Your task to perform on an android device: Go to eBay Image 0: 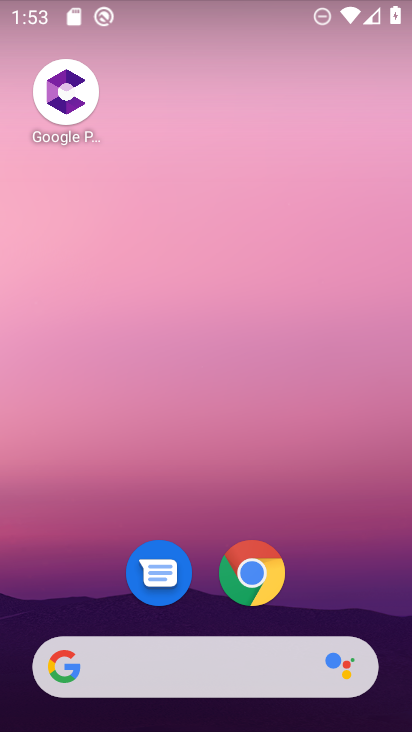
Step 0: drag from (347, 600) to (190, 0)
Your task to perform on an android device: Go to eBay Image 1: 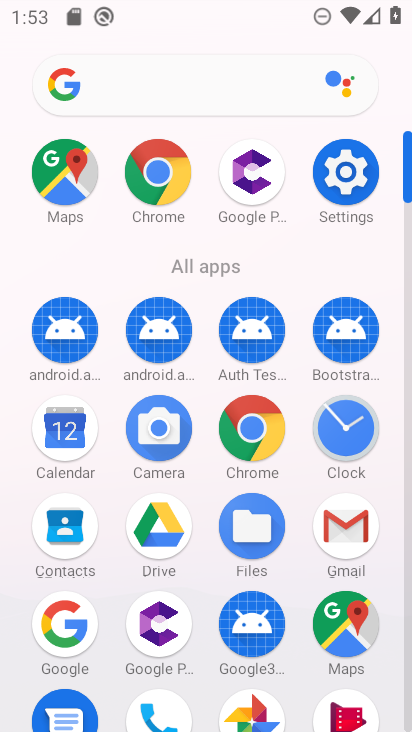
Step 1: click (155, 176)
Your task to perform on an android device: Go to eBay Image 2: 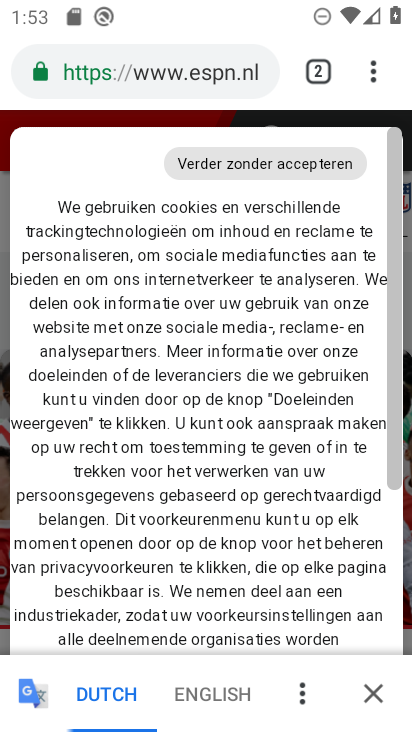
Step 2: drag from (380, 78) to (115, 571)
Your task to perform on an android device: Go to eBay Image 3: 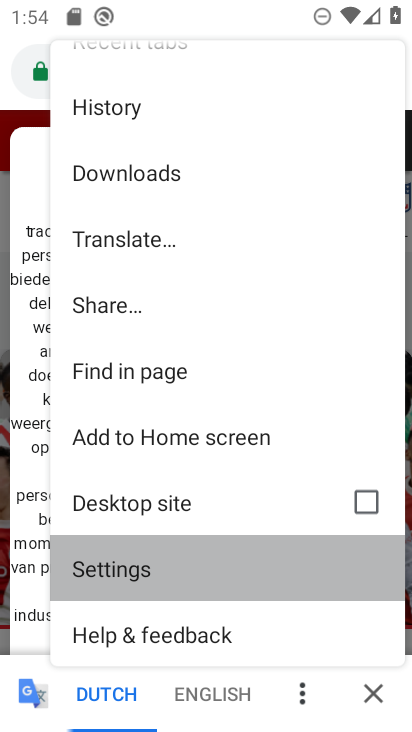
Step 3: click (115, 571)
Your task to perform on an android device: Go to eBay Image 4: 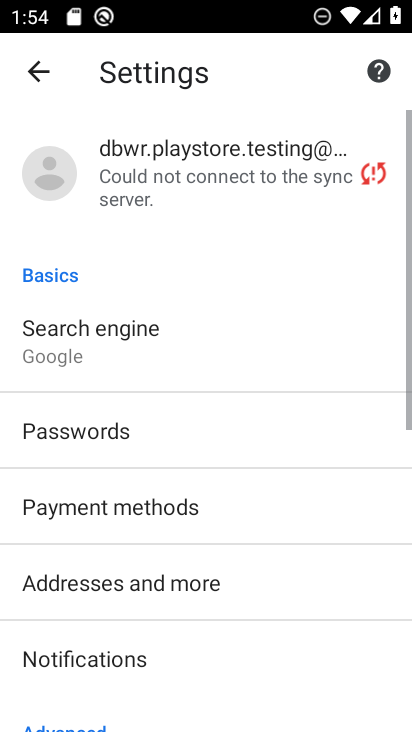
Step 4: click (174, 52)
Your task to perform on an android device: Go to eBay Image 5: 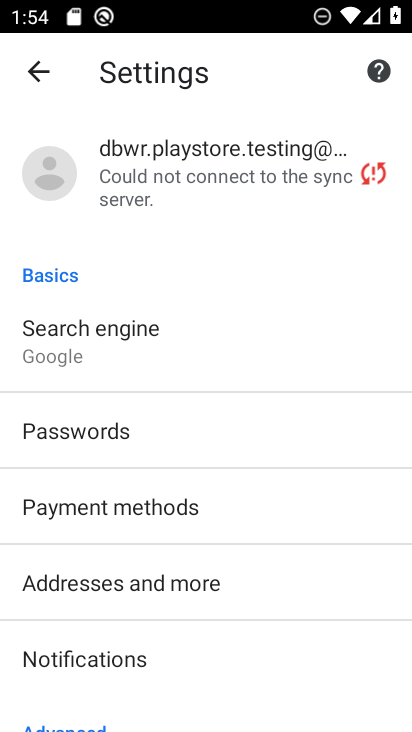
Step 5: drag from (226, 374) to (256, 148)
Your task to perform on an android device: Go to eBay Image 6: 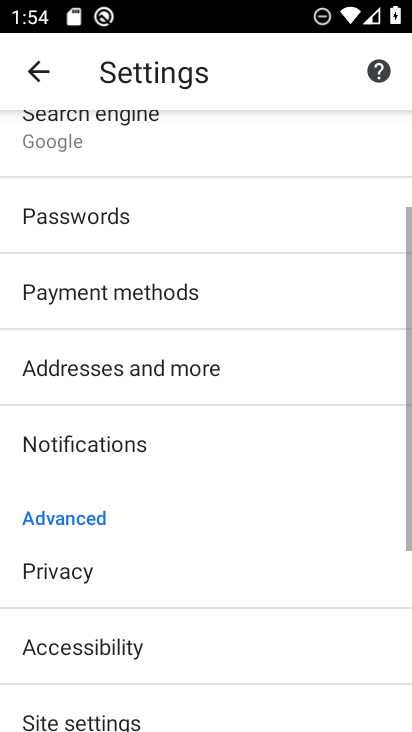
Step 6: drag from (227, 477) to (124, 113)
Your task to perform on an android device: Go to eBay Image 7: 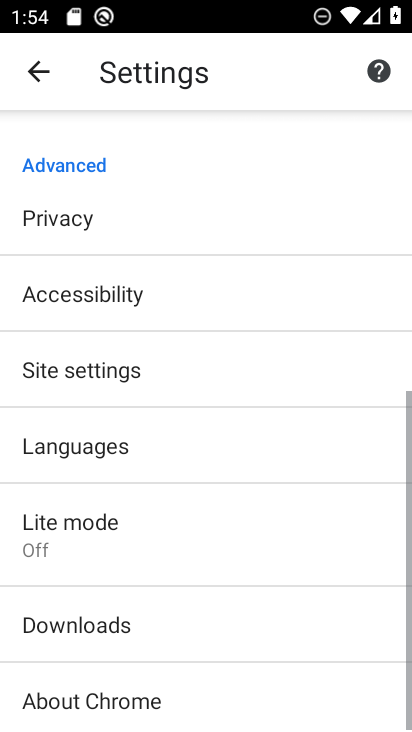
Step 7: drag from (130, 492) to (102, 160)
Your task to perform on an android device: Go to eBay Image 8: 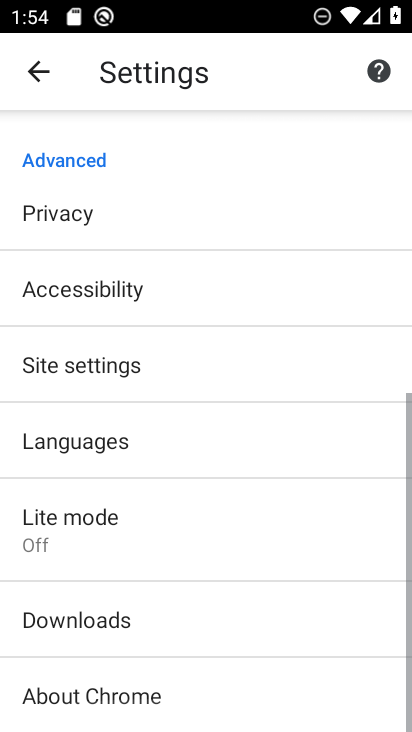
Step 8: drag from (156, 337) to (140, 138)
Your task to perform on an android device: Go to eBay Image 9: 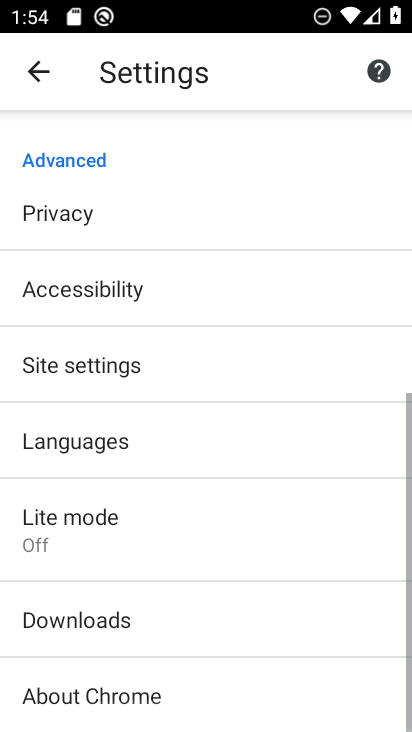
Step 9: drag from (175, 383) to (152, 109)
Your task to perform on an android device: Go to eBay Image 10: 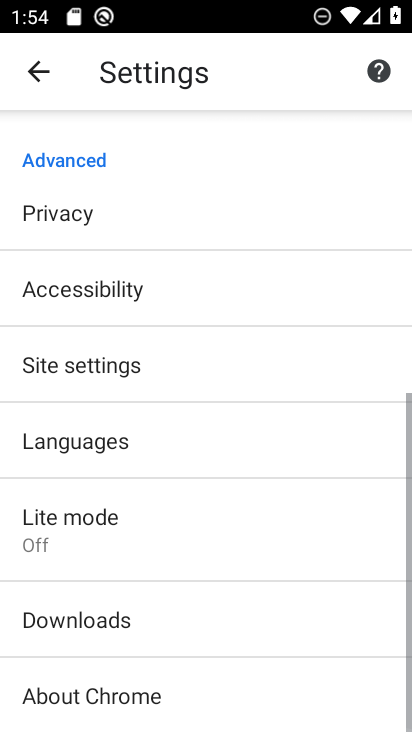
Step 10: drag from (120, 335) to (115, 42)
Your task to perform on an android device: Go to eBay Image 11: 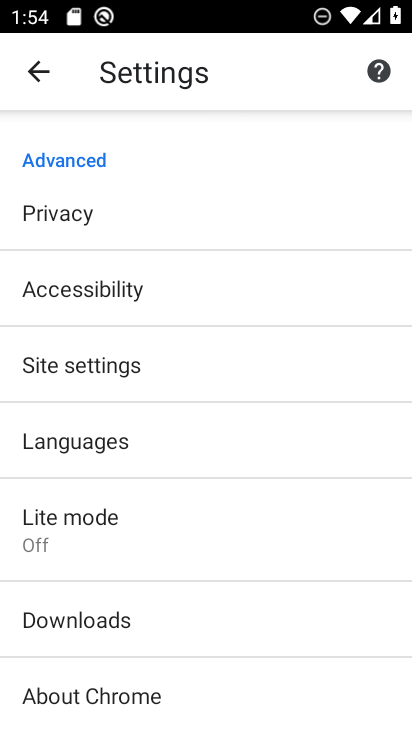
Step 11: drag from (137, 324) to (137, 189)
Your task to perform on an android device: Go to eBay Image 12: 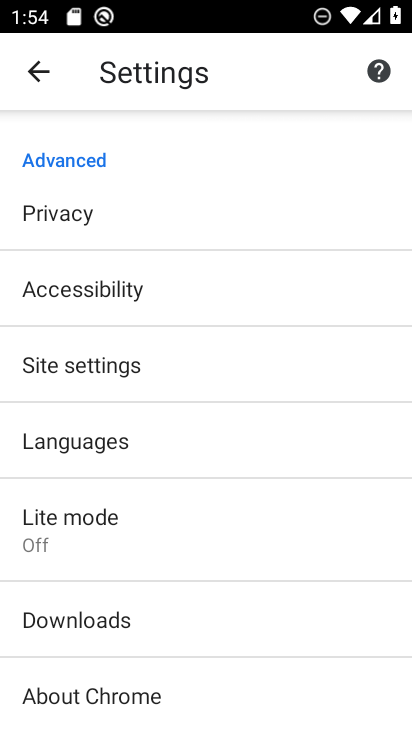
Step 12: click (63, 366)
Your task to perform on an android device: Go to eBay Image 13: 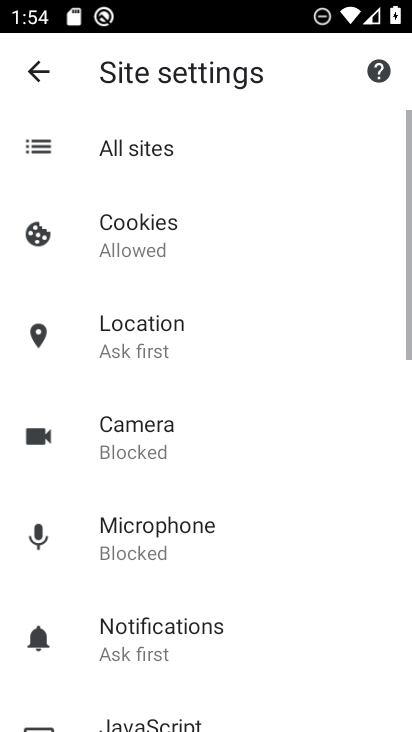
Step 13: click (37, 77)
Your task to perform on an android device: Go to eBay Image 14: 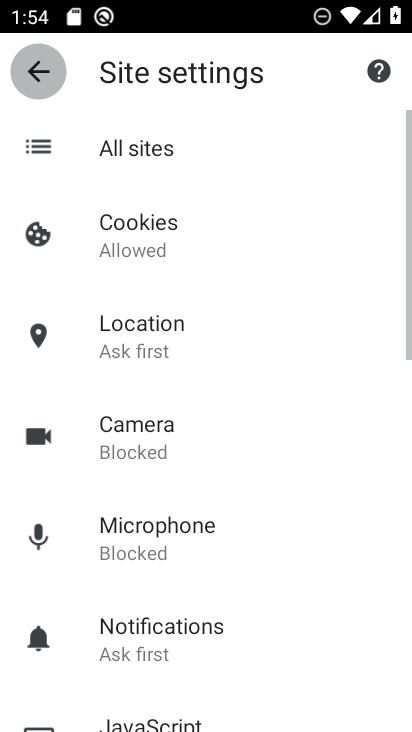
Step 14: click (37, 77)
Your task to perform on an android device: Go to eBay Image 15: 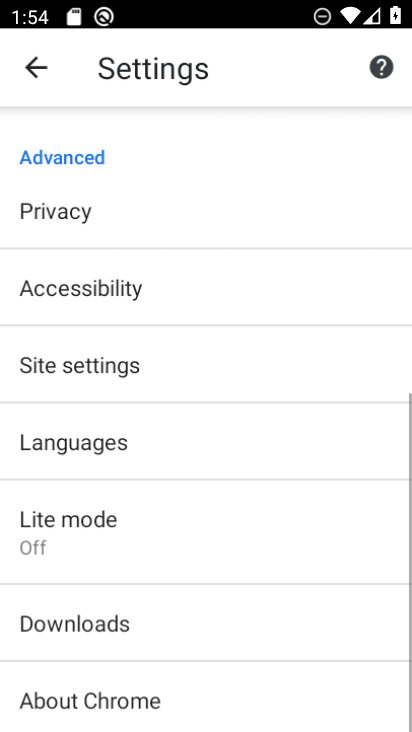
Step 15: click (36, 76)
Your task to perform on an android device: Go to eBay Image 16: 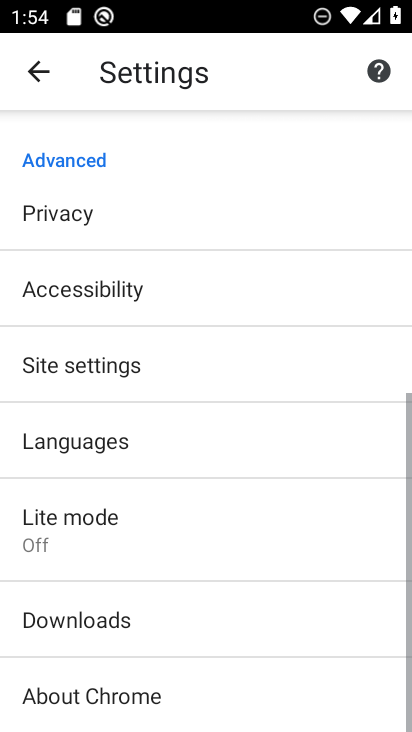
Step 16: click (36, 76)
Your task to perform on an android device: Go to eBay Image 17: 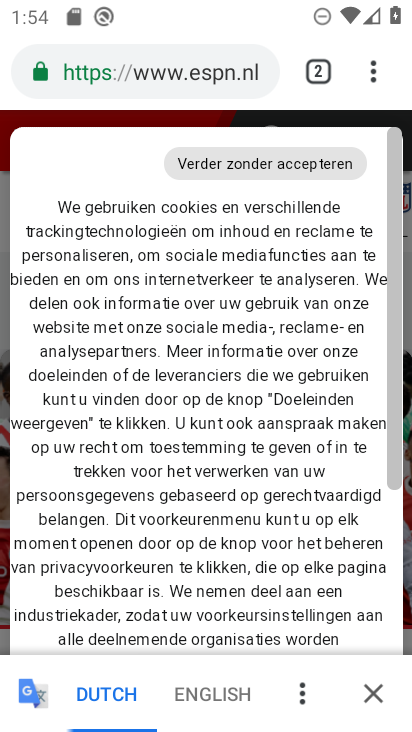
Step 17: drag from (370, 76) to (103, 143)
Your task to perform on an android device: Go to eBay Image 18: 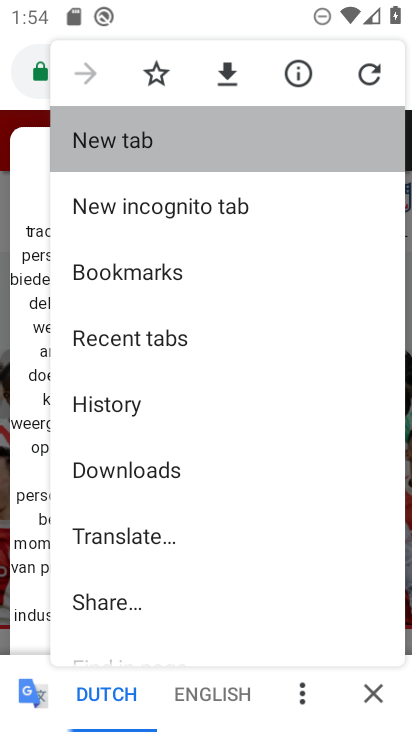
Step 18: click (102, 136)
Your task to perform on an android device: Go to eBay Image 19: 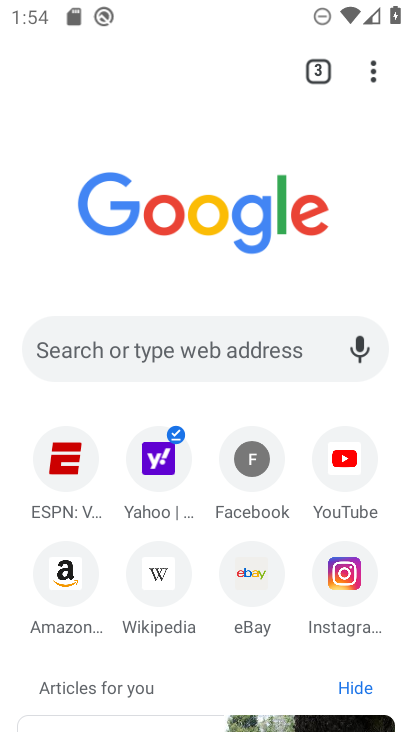
Step 19: click (246, 582)
Your task to perform on an android device: Go to eBay Image 20: 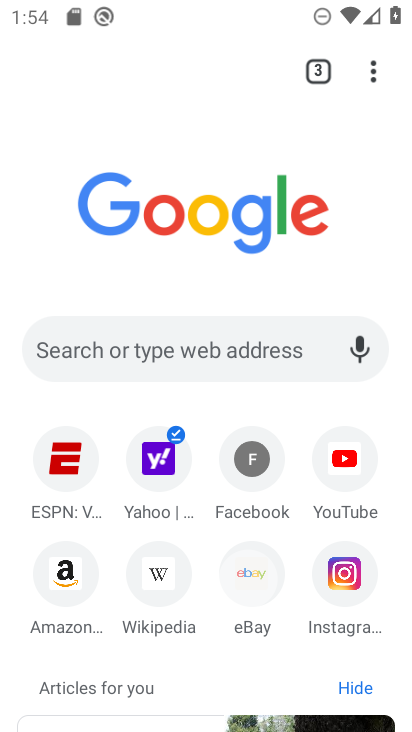
Step 20: click (247, 581)
Your task to perform on an android device: Go to eBay Image 21: 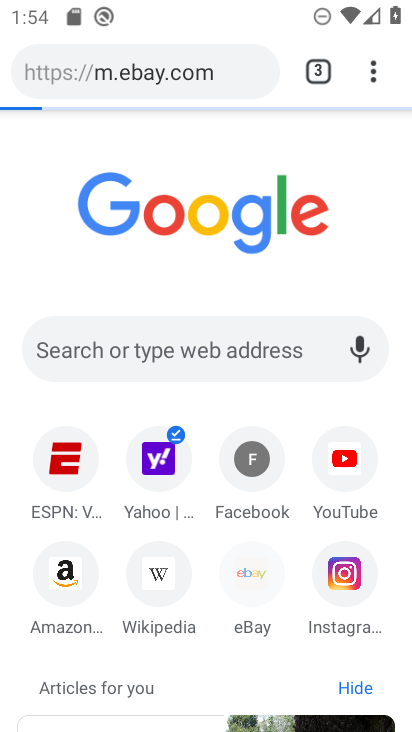
Step 21: click (250, 581)
Your task to perform on an android device: Go to eBay Image 22: 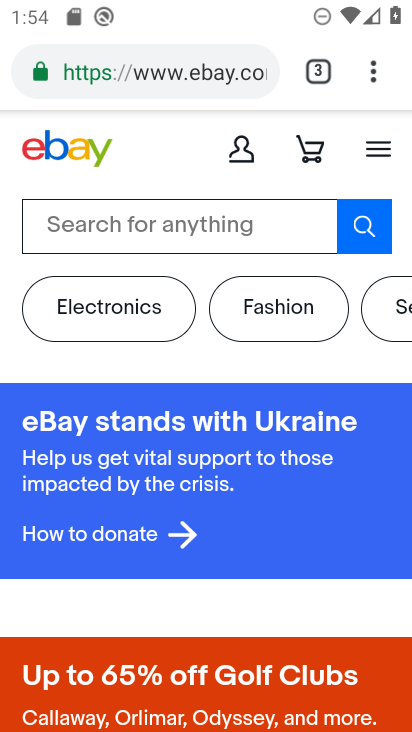
Step 22: task complete